Your task to perform on an android device: open chrome privacy settings Image 0: 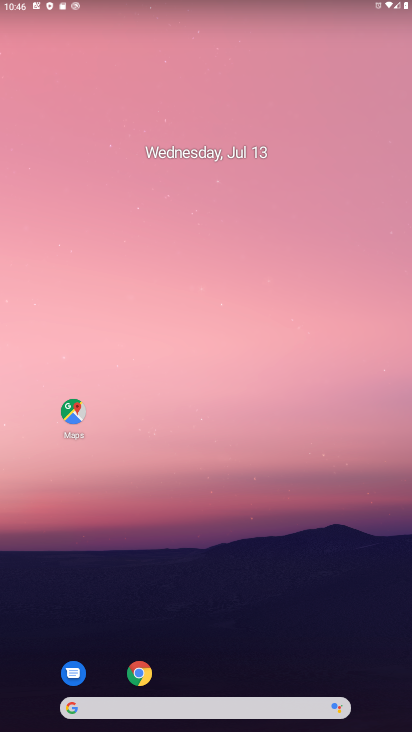
Step 0: click (148, 672)
Your task to perform on an android device: open chrome privacy settings Image 1: 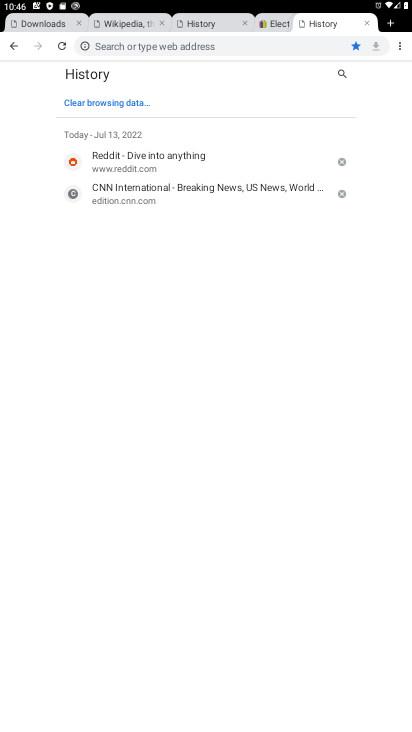
Step 1: click (396, 47)
Your task to perform on an android device: open chrome privacy settings Image 2: 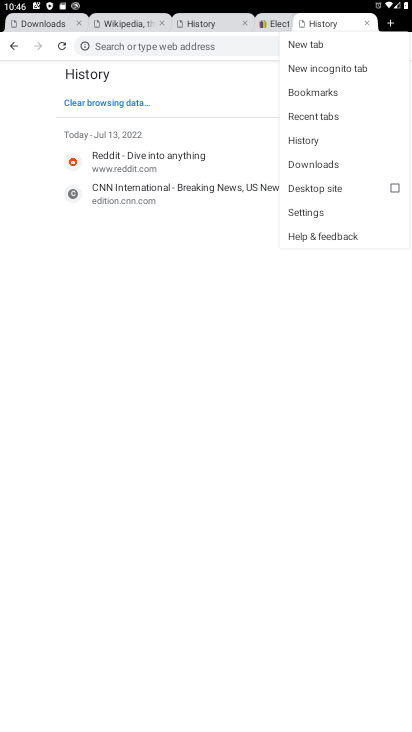
Step 2: click (324, 209)
Your task to perform on an android device: open chrome privacy settings Image 3: 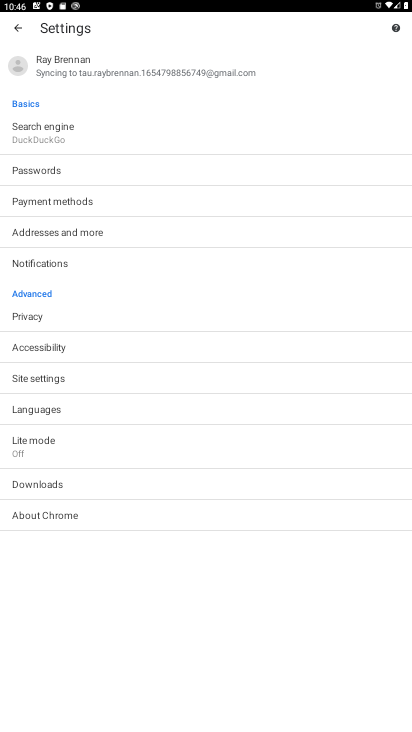
Step 3: click (77, 312)
Your task to perform on an android device: open chrome privacy settings Image 4: 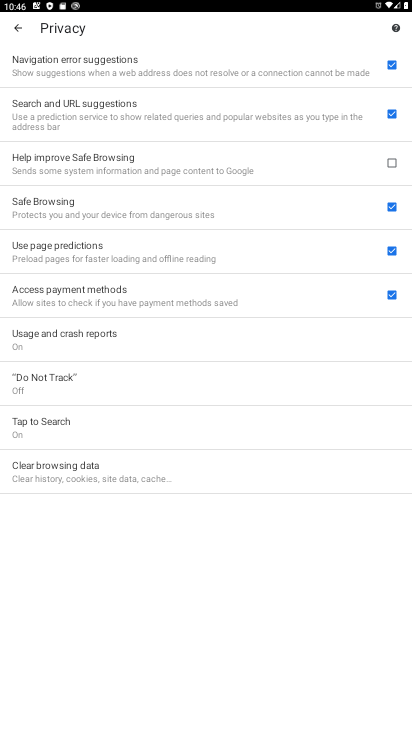
Step 4: task complete